Your task to perform on an android device: clear all cookies in the chrome app Image 0: 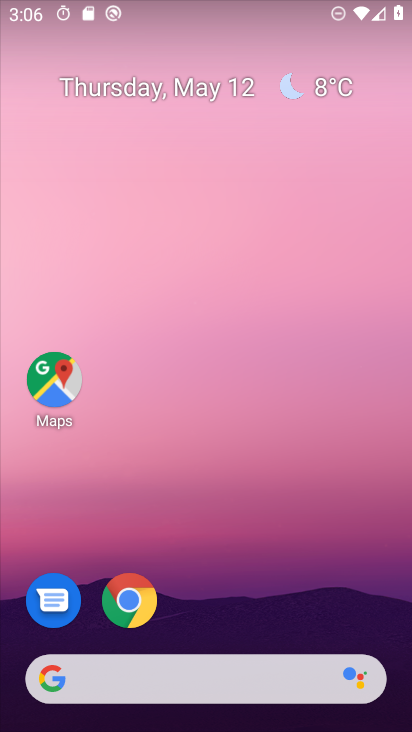
Step 0: click (136, 604)
Your task to perform on an android device: clear all cookies in the chrome app Image 1: 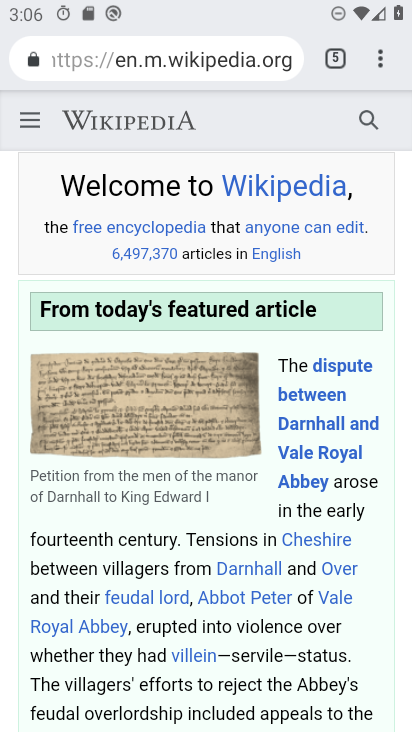
Step 1: click (378, 59)
Your task to perform on an android device: clear all cookies in the chrome app Image 2: 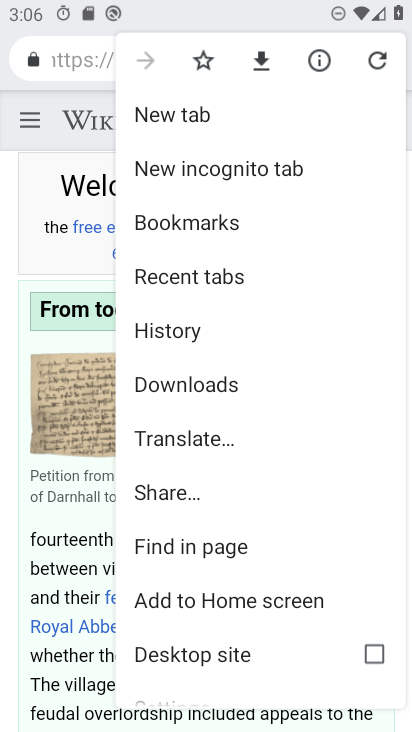
Step 2: click (167, 317)
Your task to perform on an android device: clear all cookies in the chrome app Image 3: 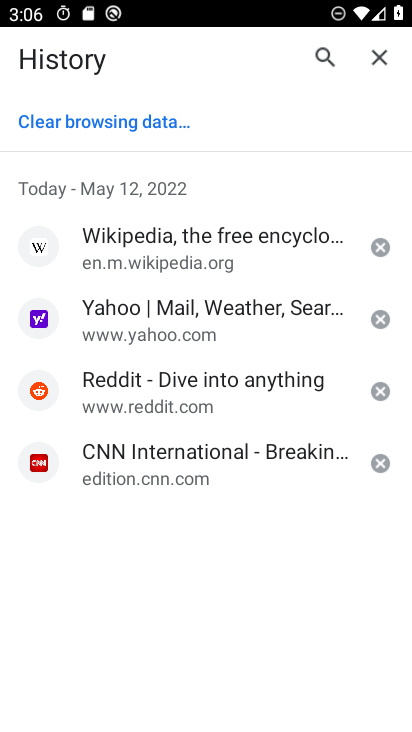
Step 3: click (104, 114)
Your task to perform on an android device: clear all cookies in the chrome app Image 4: 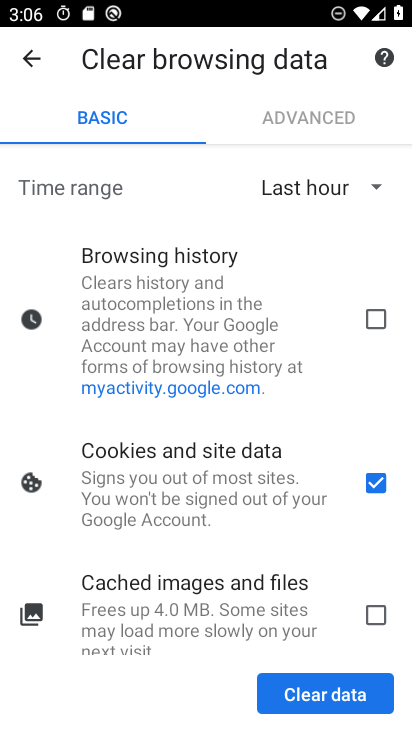
Step 4: click (329, 698)
Your task to perform on an android device: clear all cookies in the chrome app Image 5: 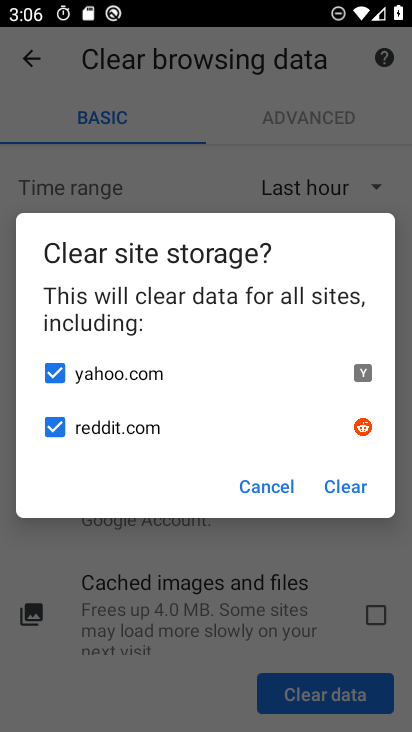
Step 5: click (333, 483)
Your task to perform on an android device: clear all cookies in the chrome app Image 6: 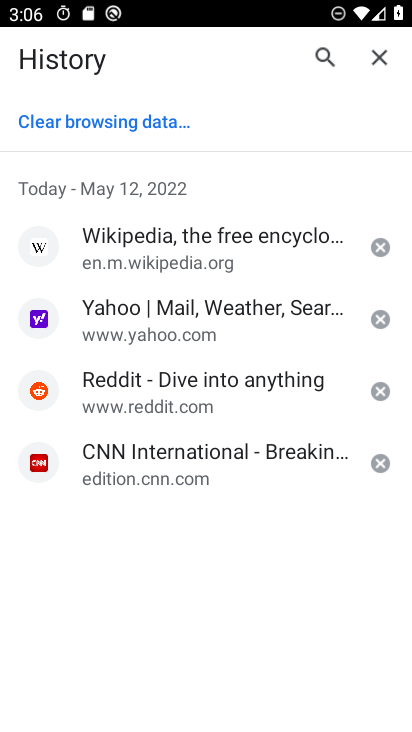
Step 6: task complete